Your task to perform on an android device: Empty the shopping cart on amazon. Search for razer naga on amazon, select the first entry, add it to the cart, then select checkout. Image 0: 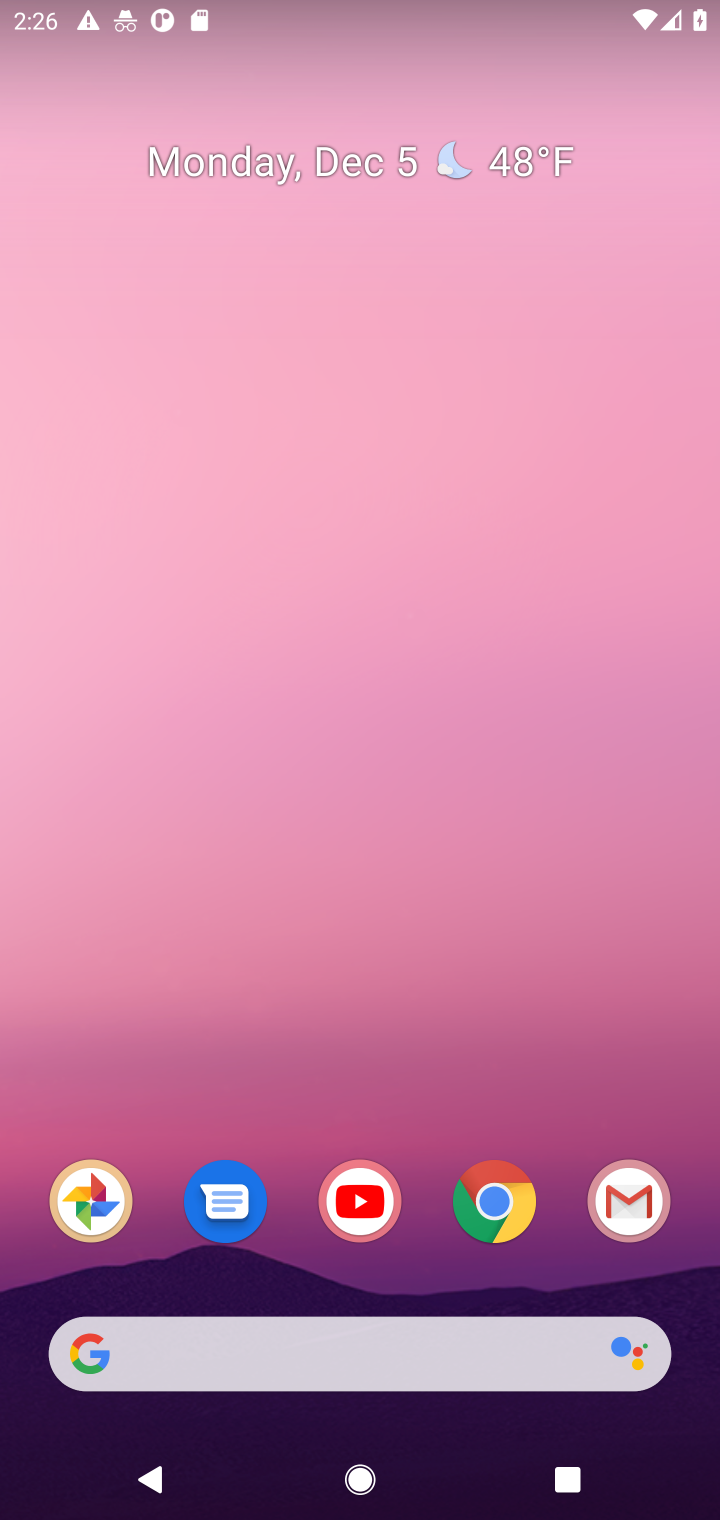
Step 0: click (494, 83)
Your task to perform on an android device: Empty the shopping cart on amazon. Search for razer naga on amazon, select the first entry, add it to the cart, then select checkout. Image 1: 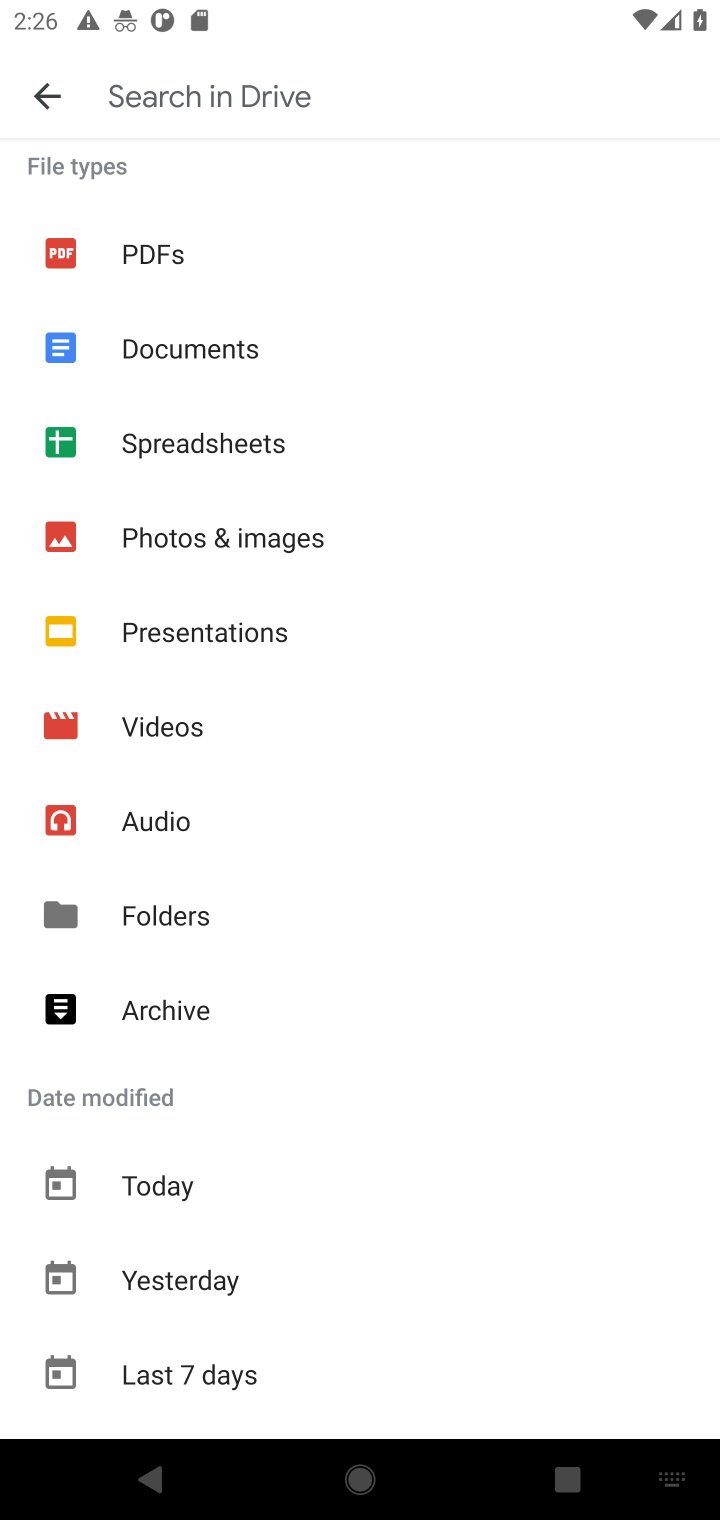
Step 1: press home button
Your task to perform on an android device: Empty the shopping cart on amazon. Search for razer naga on amazon, select the first entry, add it to the cart, then select checkout. Image 2: 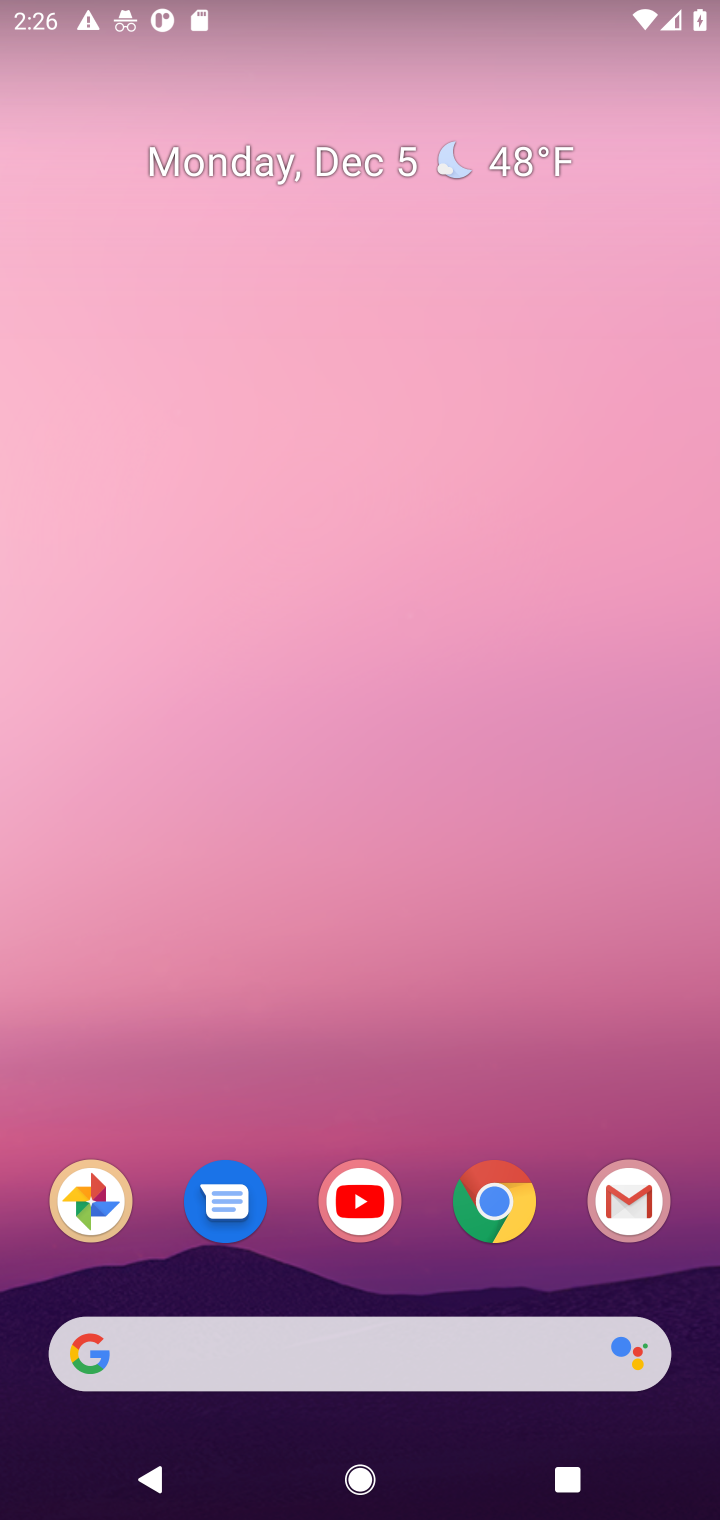
Step 2: click (485, 1179)
Your task to perform on an android device: Empty the shopping cart on amazon. Search for razer naga on amazon, select the first entry, add it to the cart, then select checkout. Image 3: 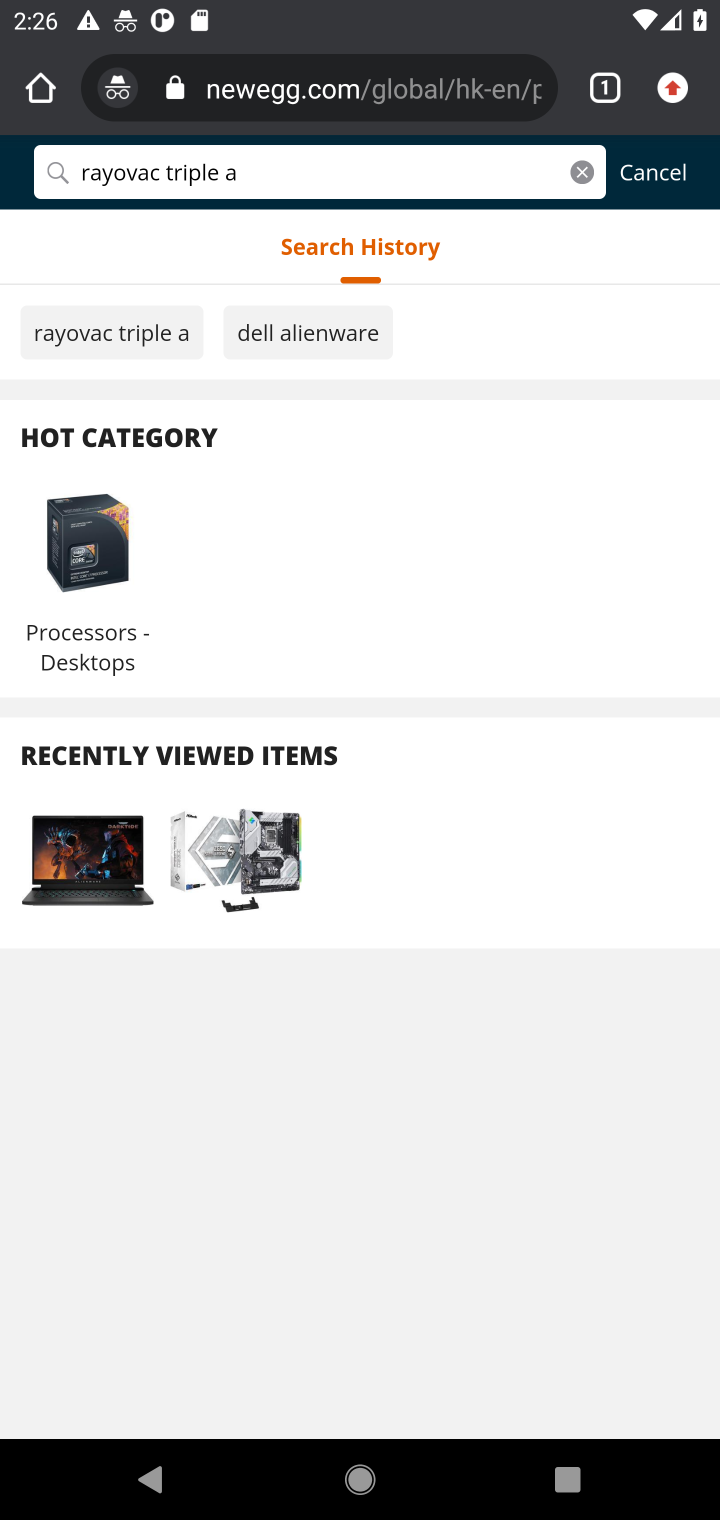
Step 3: click (304, 81)
Your task to perform on an android device: Empty the shopping cart on amazon. Search for razer naga on amazon, select the first entry, add it to the cart, then select checkout. Image 4: 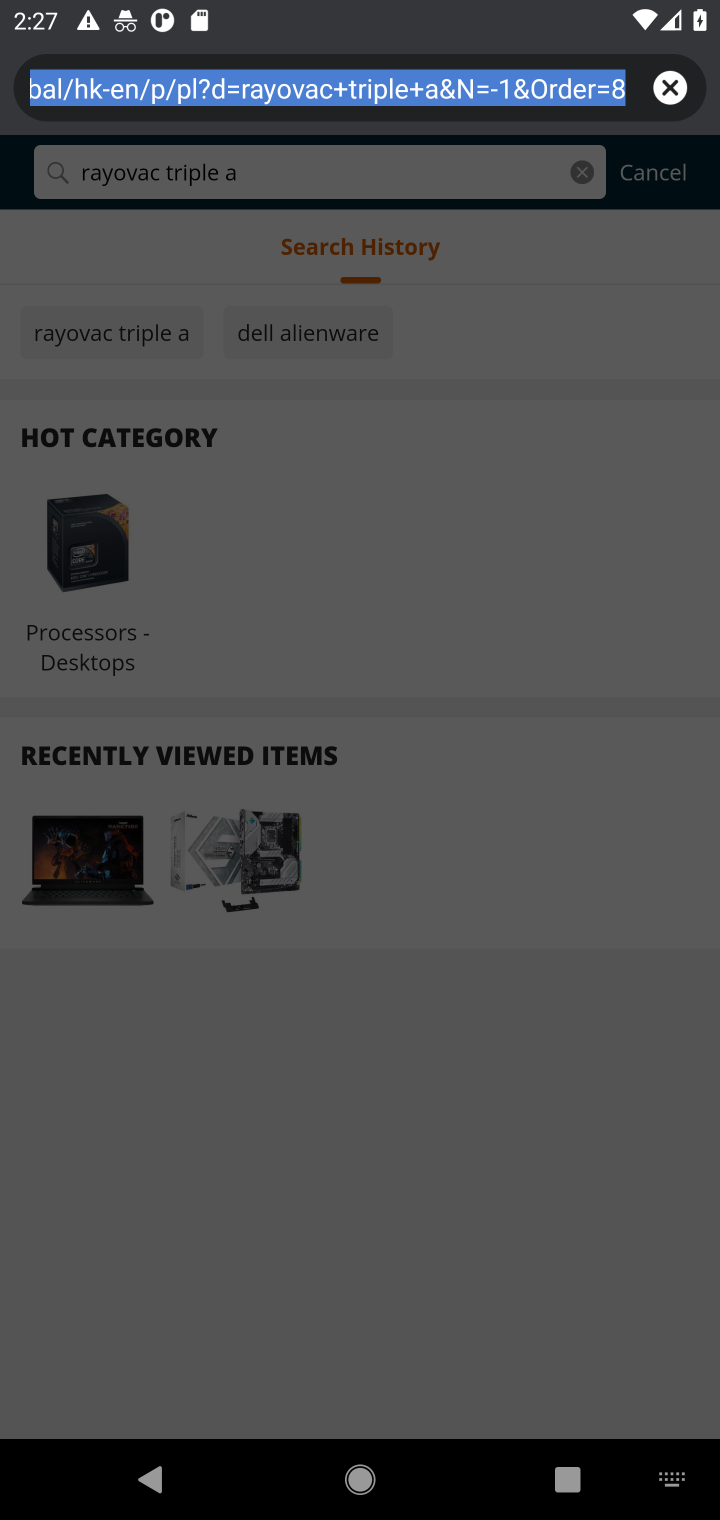
Step 4: click (669, 96)
Your task to perform on an android device: Empty the shopping cart on amazon. Search for razer naga on amazon, select the first entry, add it to the cart, then select checkout. Image 5: 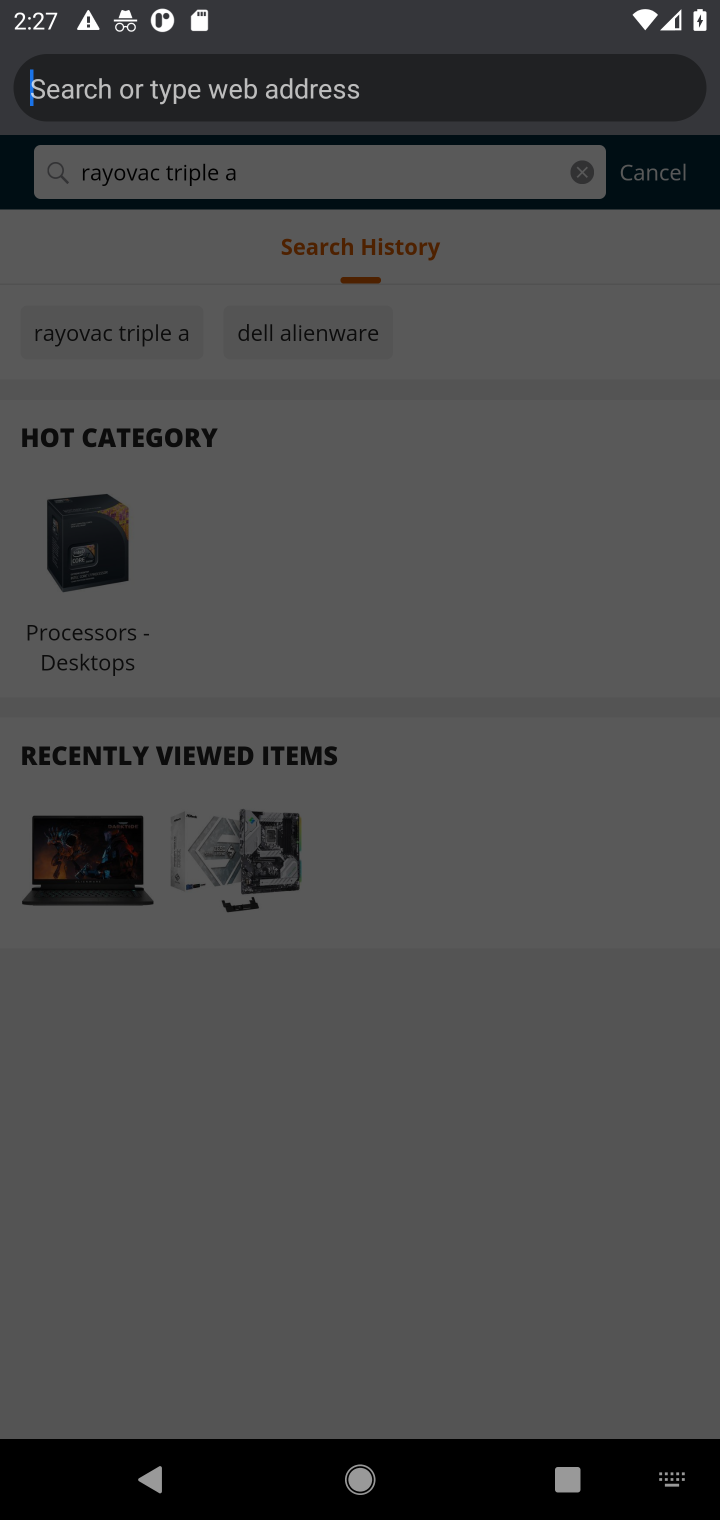
Step 5: click (231, 103)
Your task to perform on an android device: Empty the shopping cart on amazon. Search for razer naga on amazon, select the first entry, add it to the cart, then select checkout. Image 6: 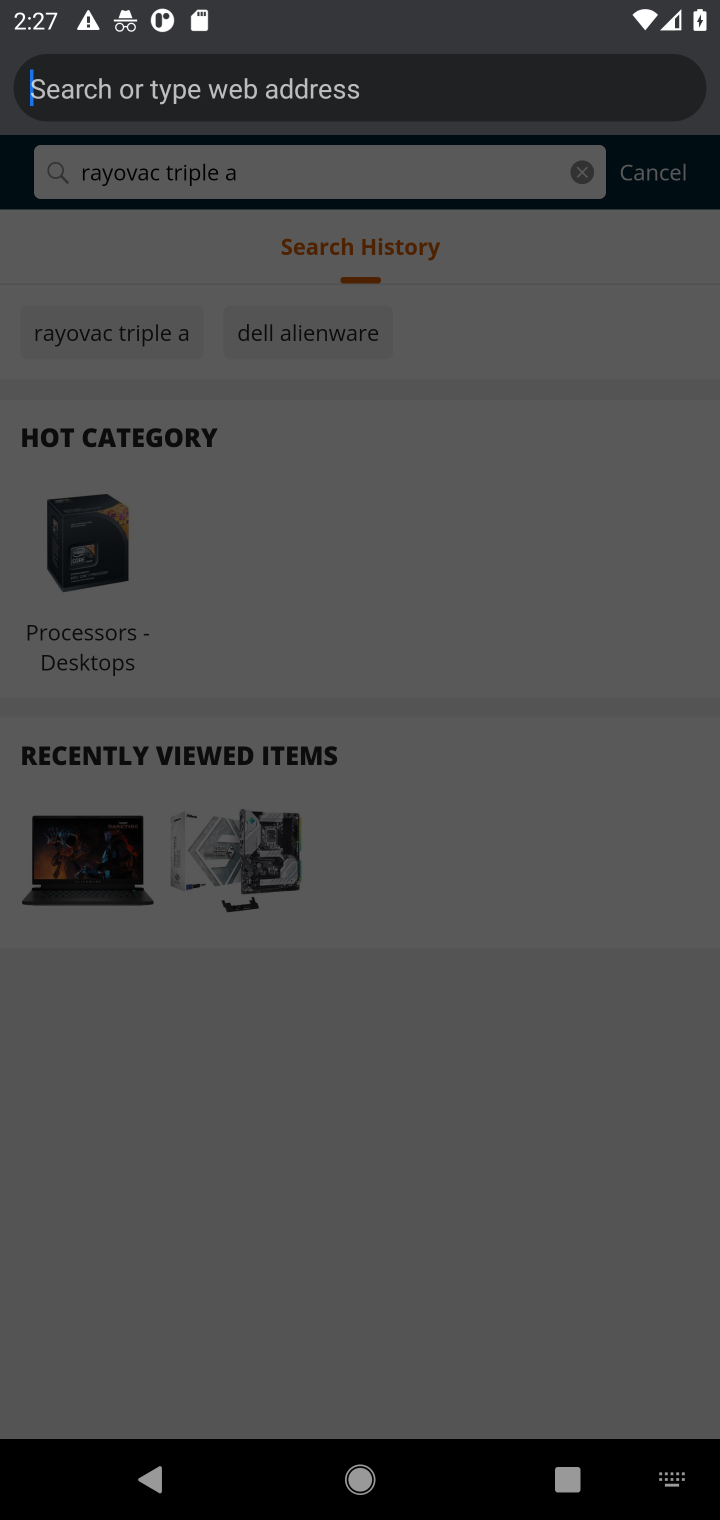
Step 6: type "amazon"
Your task to perform on an android device: Empty the shopping cart on amazon. Search for razer naga on amazon, select the first entry, add it to the cart, then select checkout. Image 7: 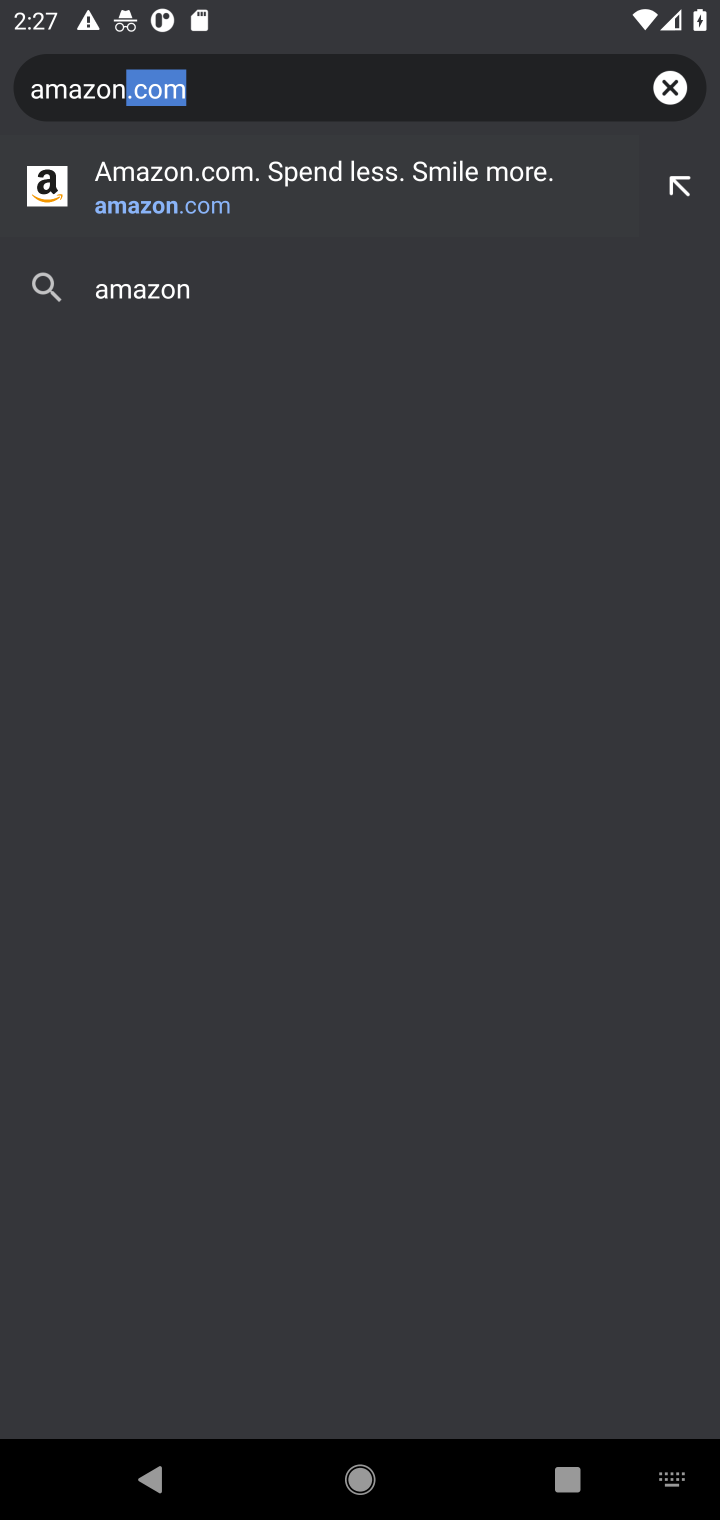
Step 7: click (197, 220)
Your task to perform on an android device: Empty the shopping cart on amazon. Search for razer naga on amazon, select the first entry, add it to the cart, then select checkout. Image 8: 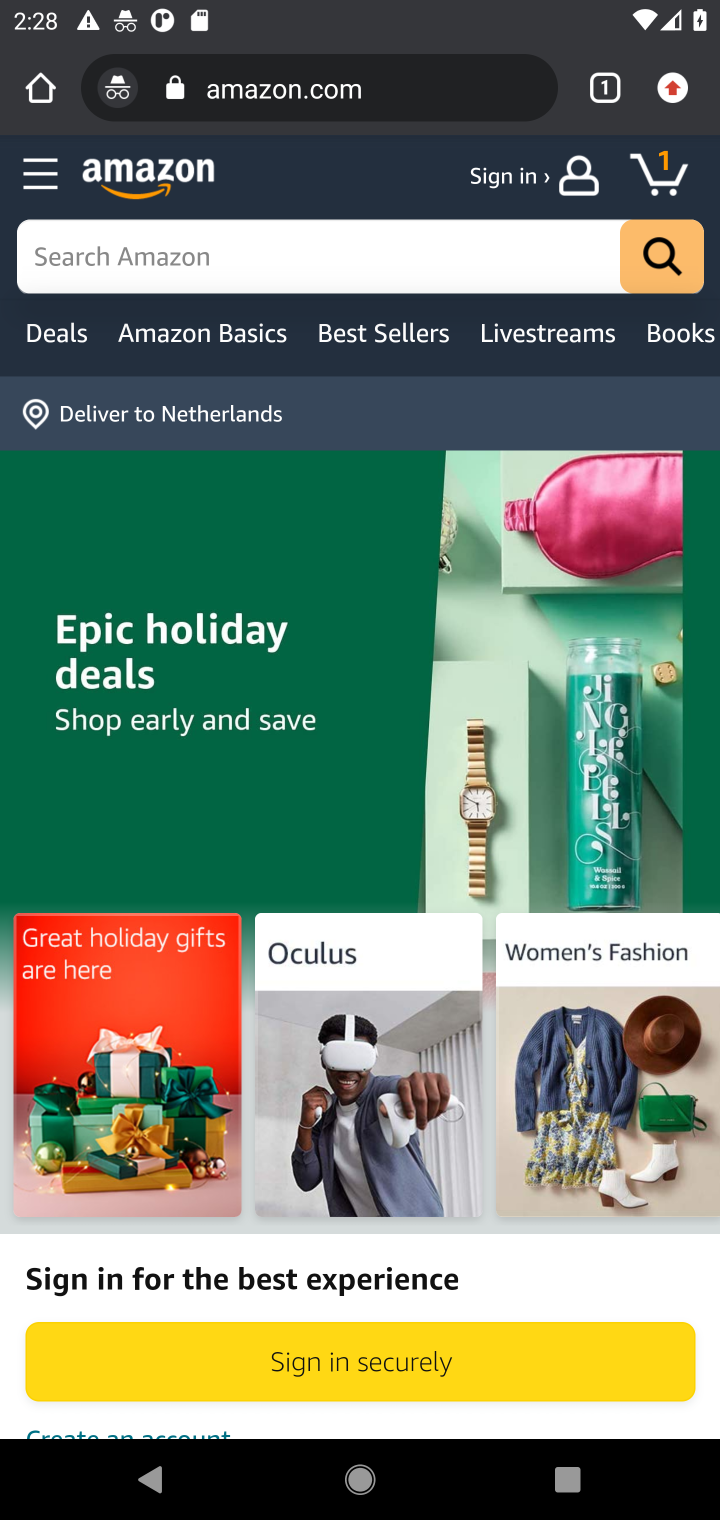
Step 8: click (671, 173)
Your task to perform on an android device: Empty the shopping cart on amazon. Search for razer naga on amazon, select the first entry, add it to the cart, then select checkout. Image 9: 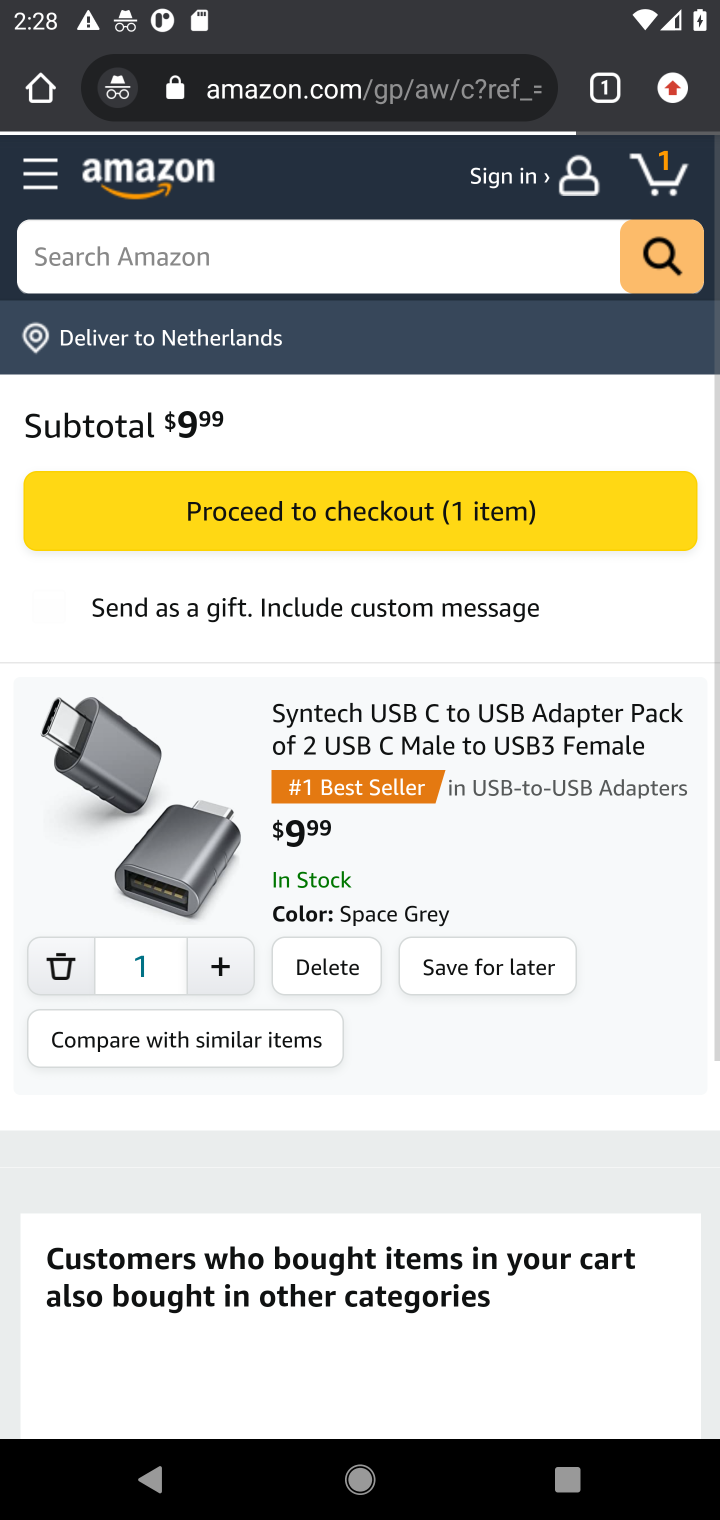
Step 9: click (671, 193)
Your task to perform on an android device: Empty the shopping cart on amazon. Search for razer naga on amazon, select the first entry, add it to the cart, then select checkout. Image 10: 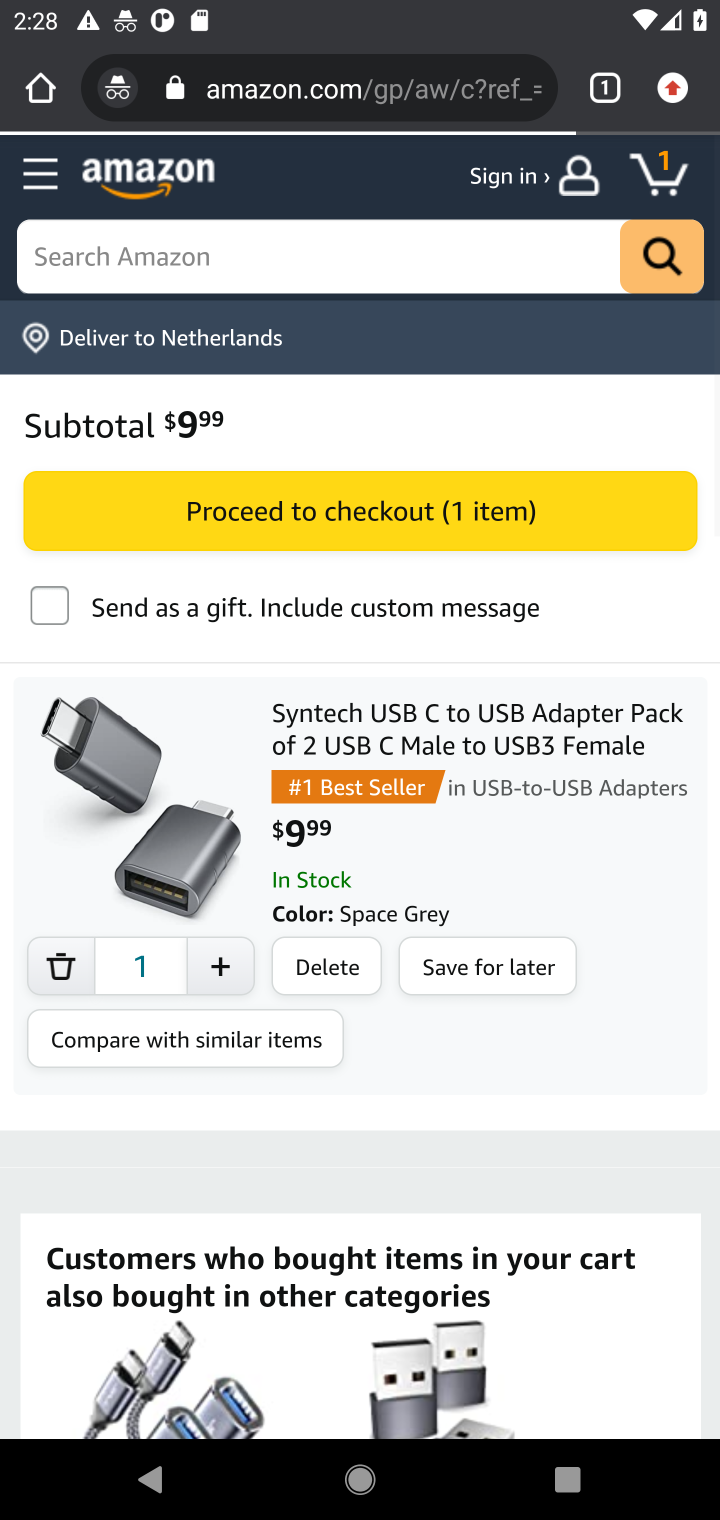
Step 10: click (76, 968)
Your task to perform on an android device: Empty the shopping cart on amazon. Search for razer naga on amazon, select the first entry, add it to the cart, then select checkout. Image 11: 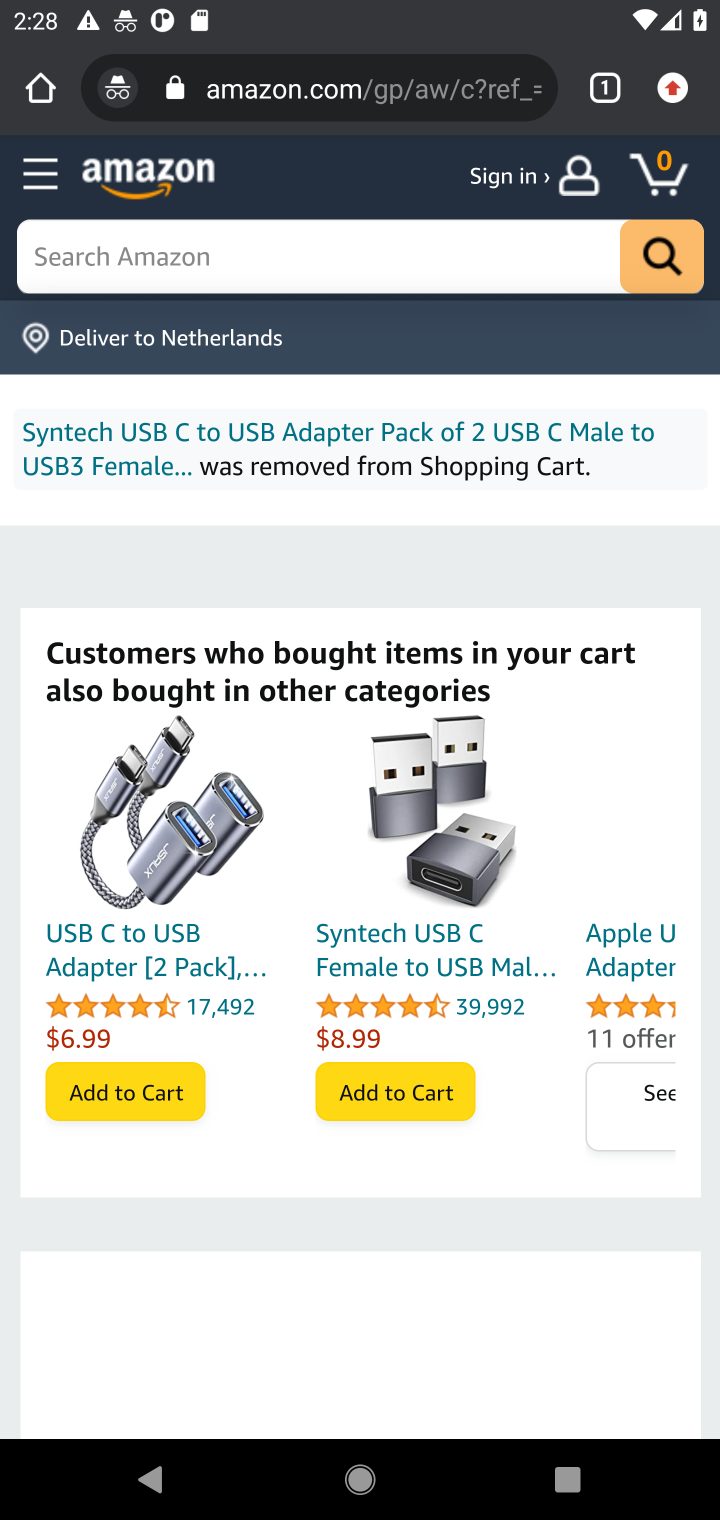
Step 11: click (76, 968)
Your task to perform on an android device: Empty the shopping cart on amazon. Search for razer naga on amazon, select the first entry, add it to the cart, then select checkout. Image 12: 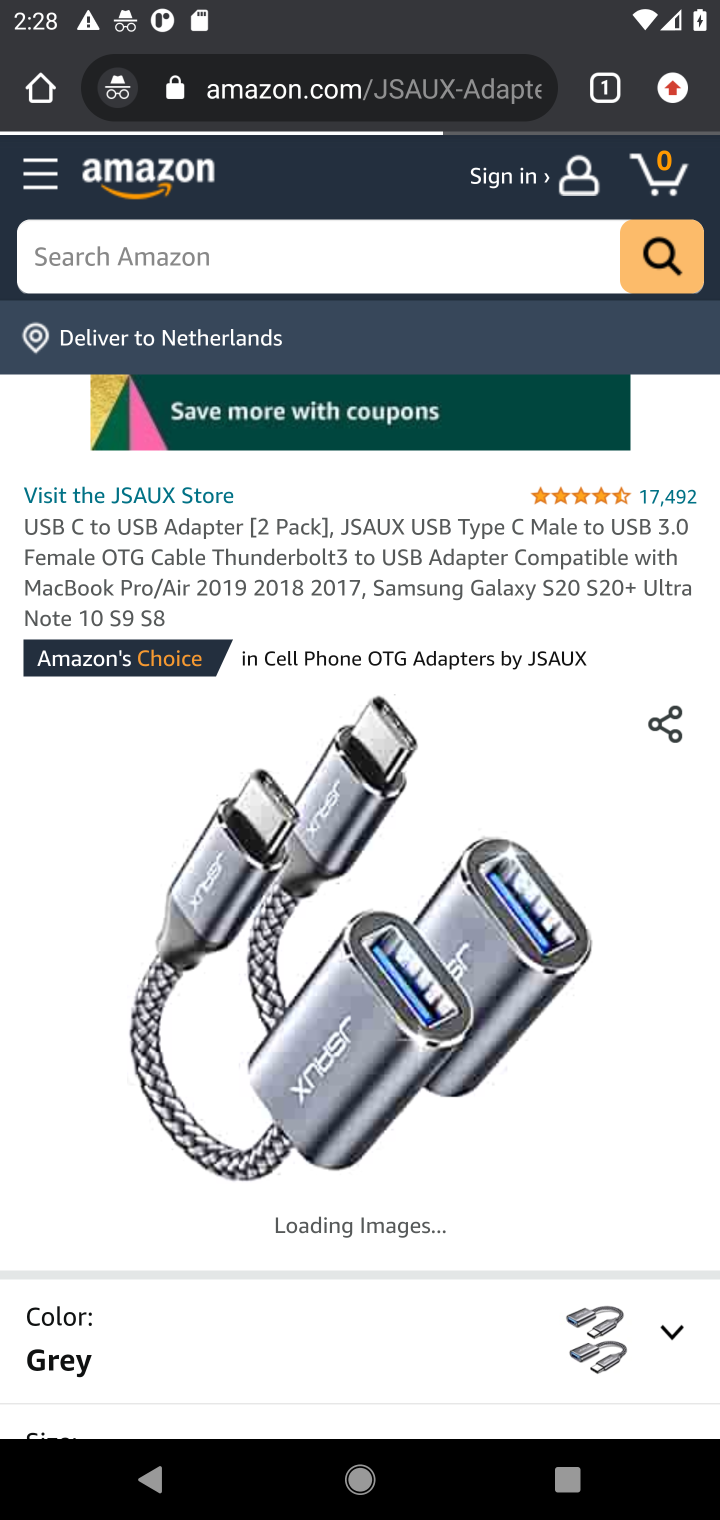
Step 12: click (251, 258)
Your task to perform on an android device: Empty the shopping cart on amazon. Search for razer naga on amazon, select the first entry, add it to the cart, then select checkout. Image 13: 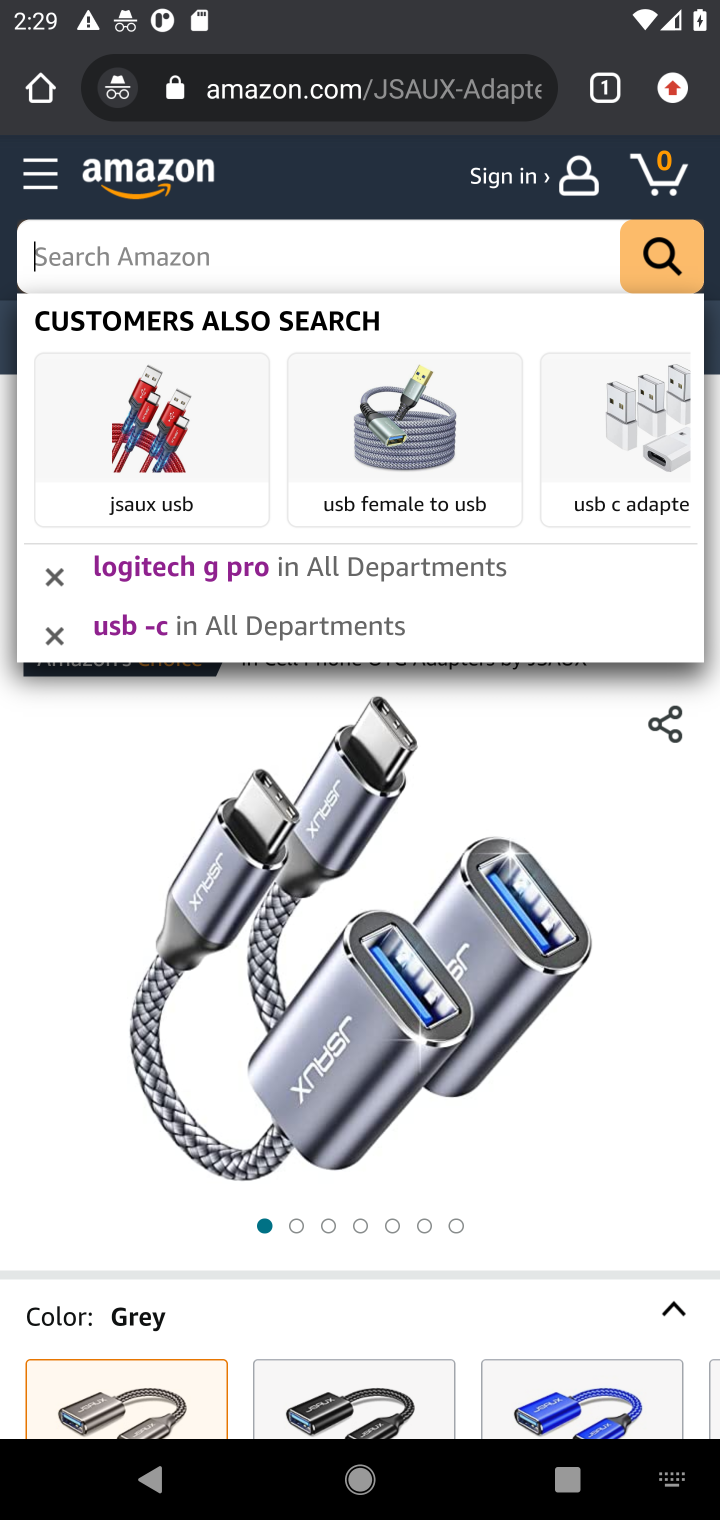
Step 13: type "razer naga"
Your task to perform on an android device: Empty the shopping cart on amazon. Search for razer naga on amazon, select the first entry, add it to the cart, then select checkout. Image 14: 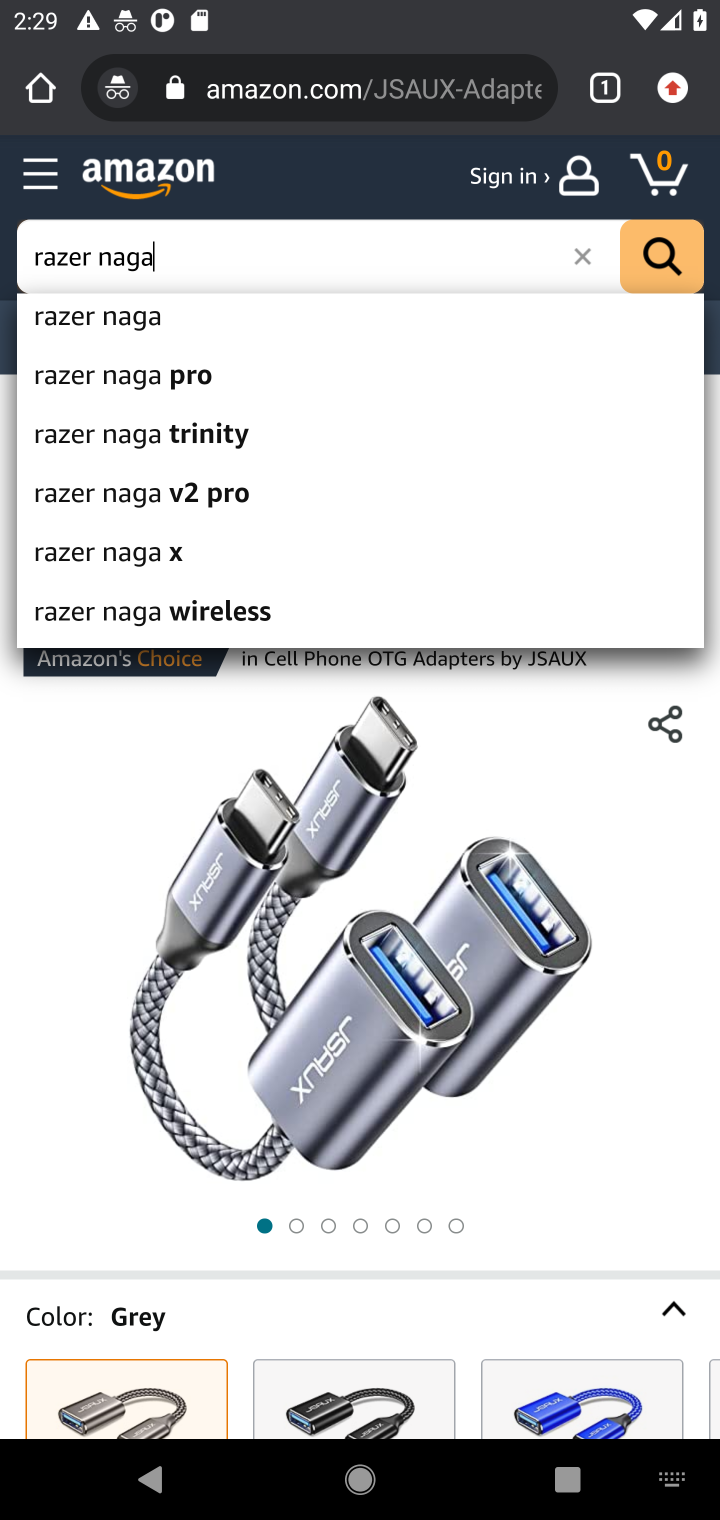
Step 14: click (651, 260)
Your task to perform on an android device: Empty the shopping cart on amazon. Search for razer naga on amazon, select the first entry, add it to the cart, then select checkout. Image 15: 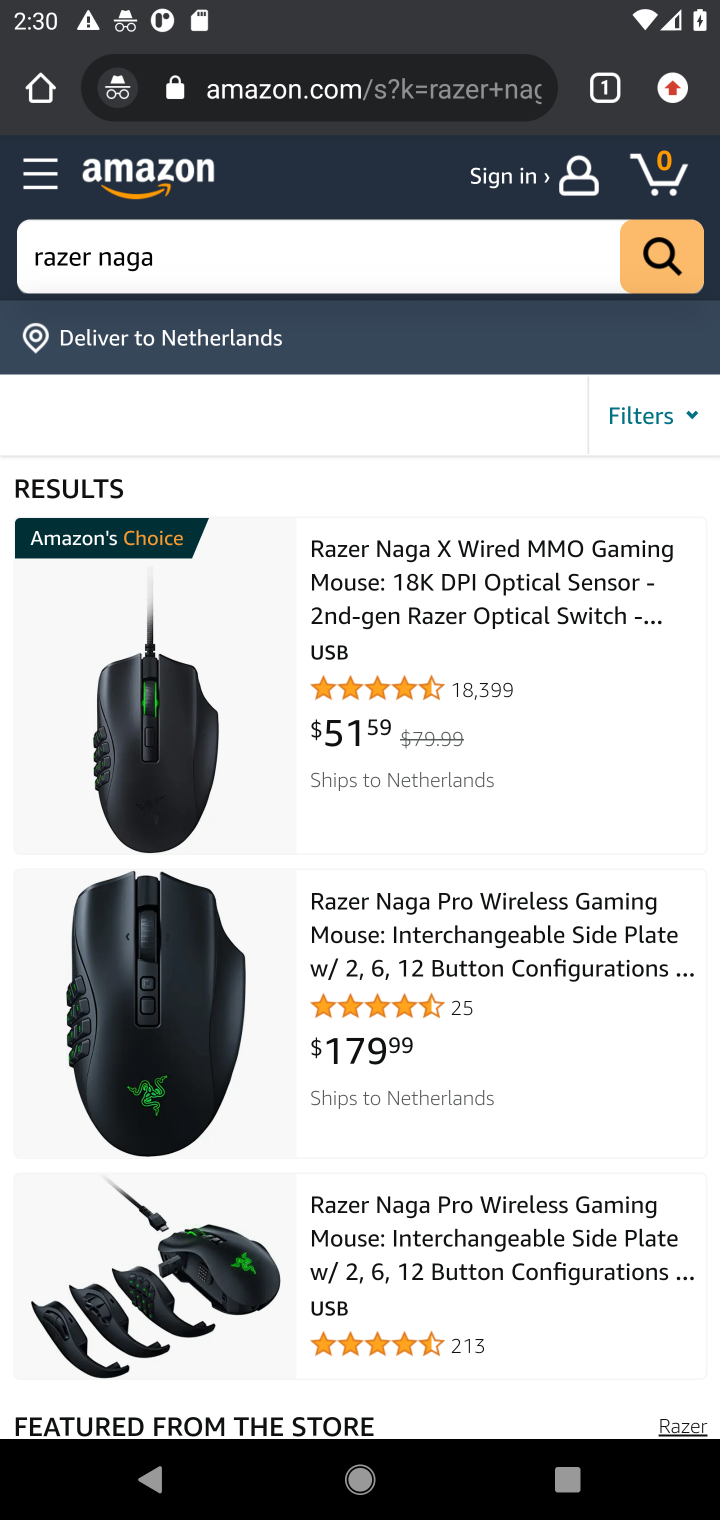
Step 15: click (563, 536)
Your task to perform on an android device: Empty the shopping cart on amazon. Search for razer naga on amazon, select the first entry, add it to the cart, then select checkout. Image 16: 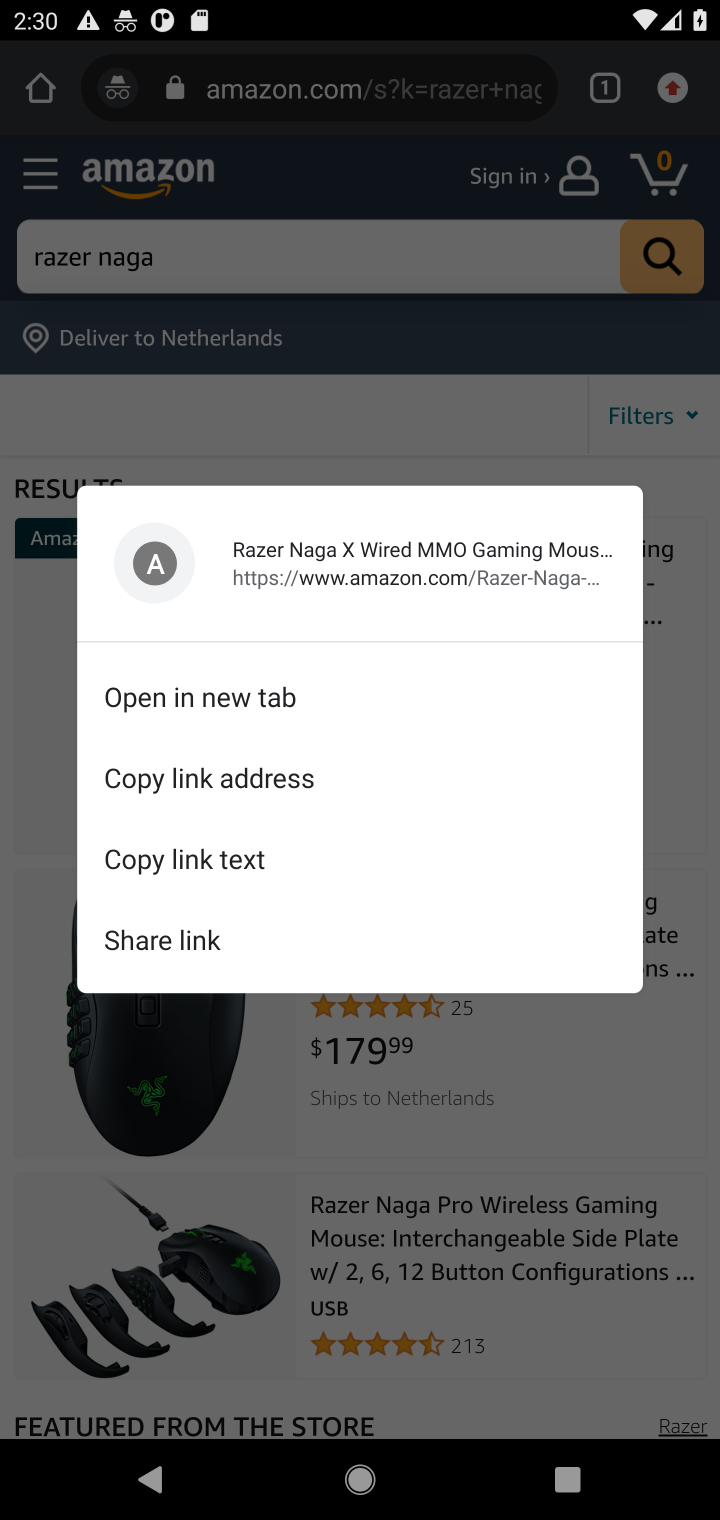
Step 16: click (671, 573)
Your task to perform on an android device: Empty the shopping cart on amazon. Search for razer naga on amazon, select the first entry, add it to the cart, then select checkout. Image 17: 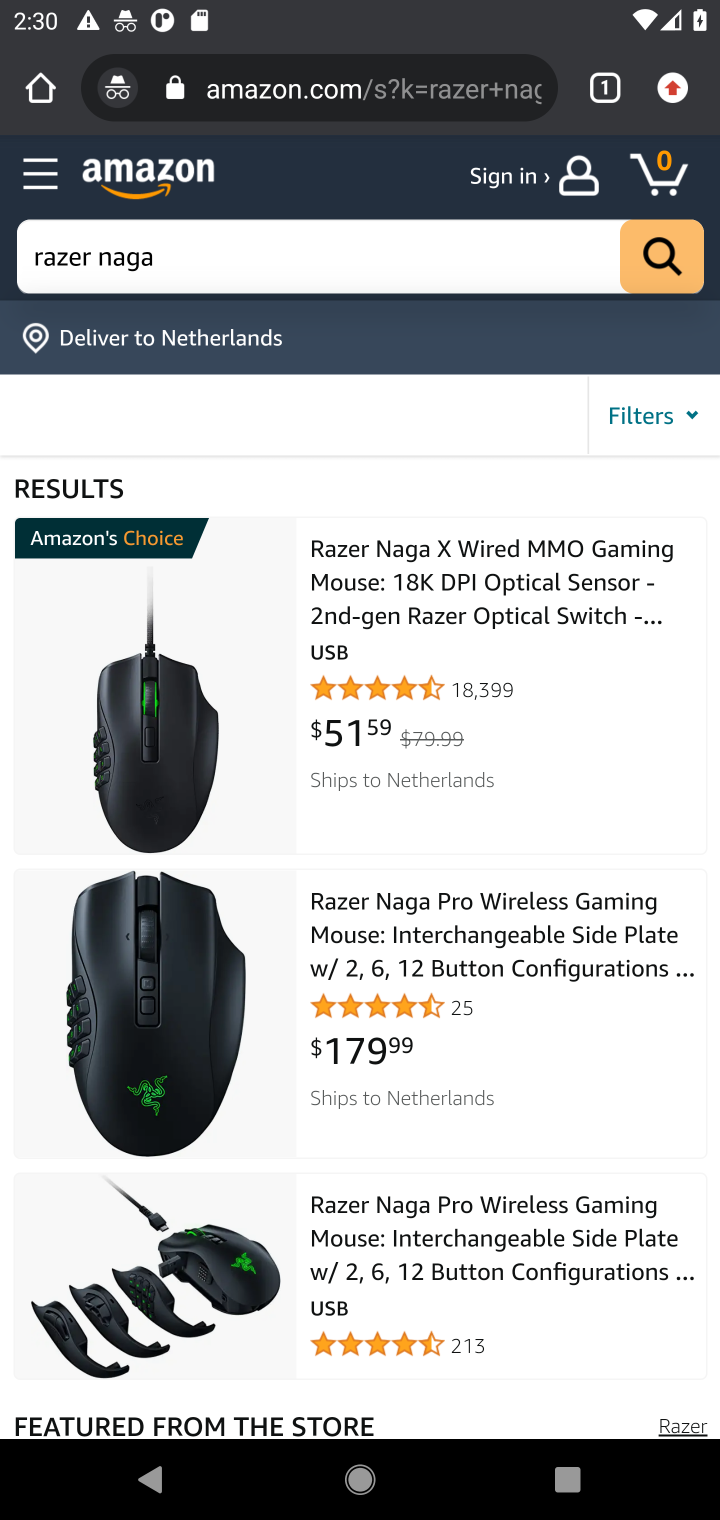
Step 17: click (671, 573)
Your task to perform on an android device: Empty the shopping cart on amazon. Search for razer naga on amazon, select the first entry, add it to the cart, then select checkout. Image 18: 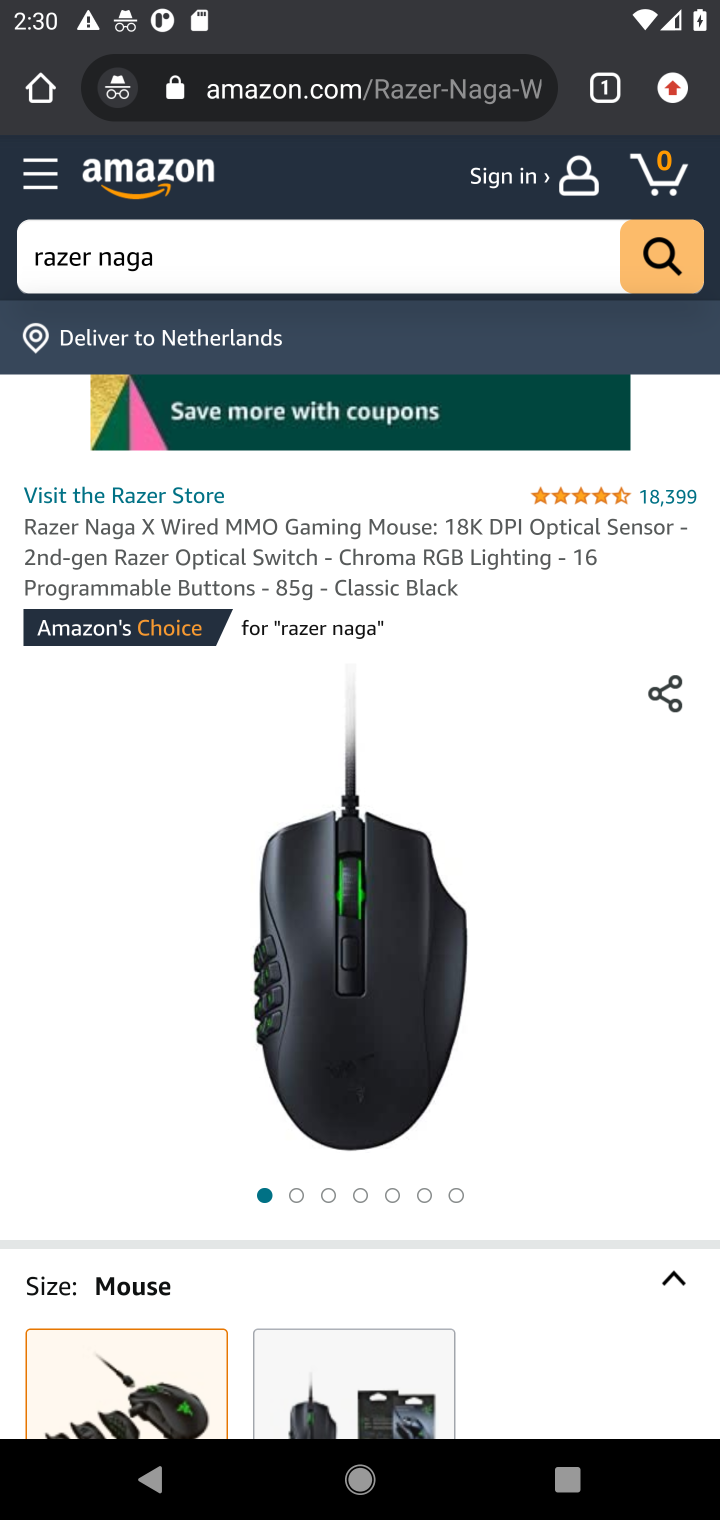
Step 18: drag from (110, 1297) to (541, 262)
Your task to perform on an android device: Empty the shopping cart on amazon. Search for razer naga on amazon, select the first entry, add it to the cart, then select checkout. Image 19: 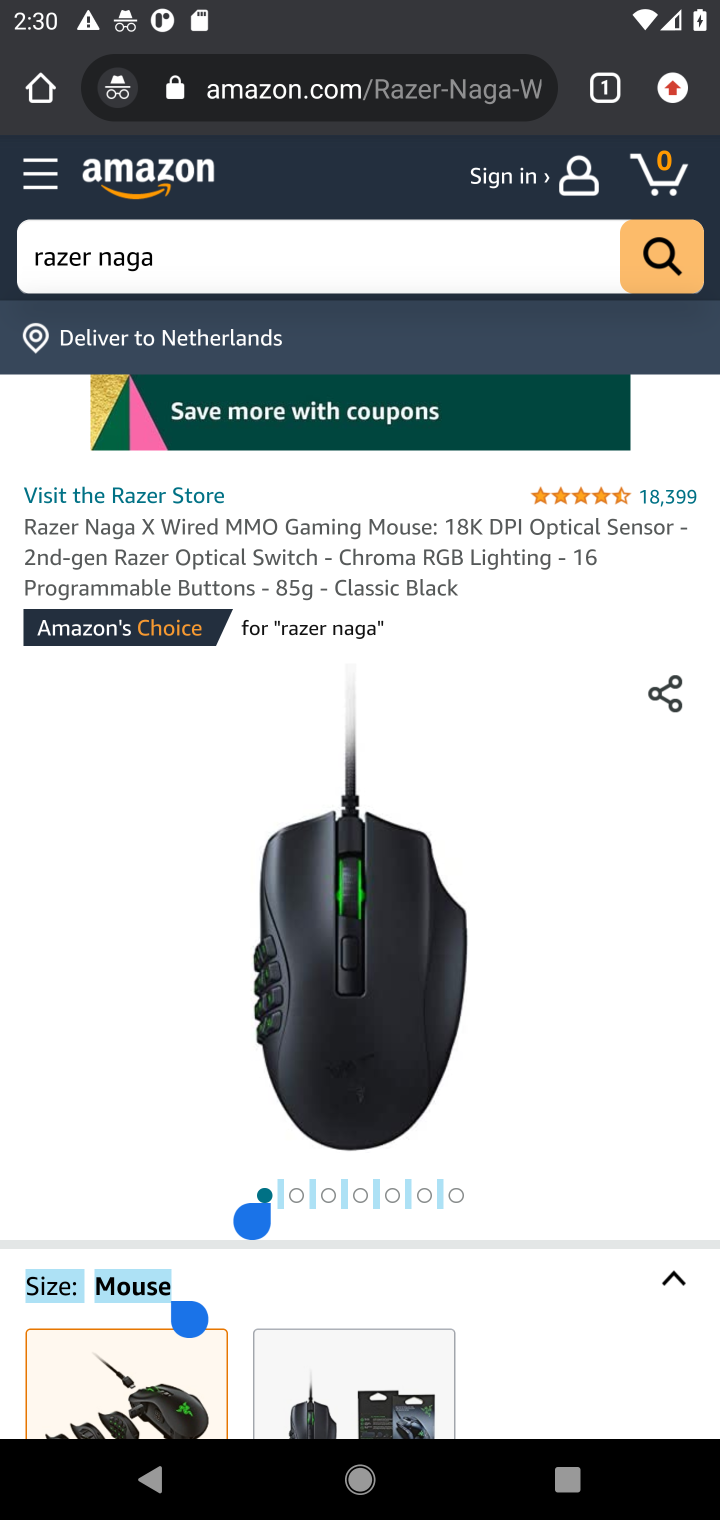
Step 19: drag from (581, 1357) to (451, 379)
Your task to perform on an android device: Empty the shopping cart on amazon. Search for razer naga on amazon, select the first entry, add it to the cart, then select checkout. Image 20: 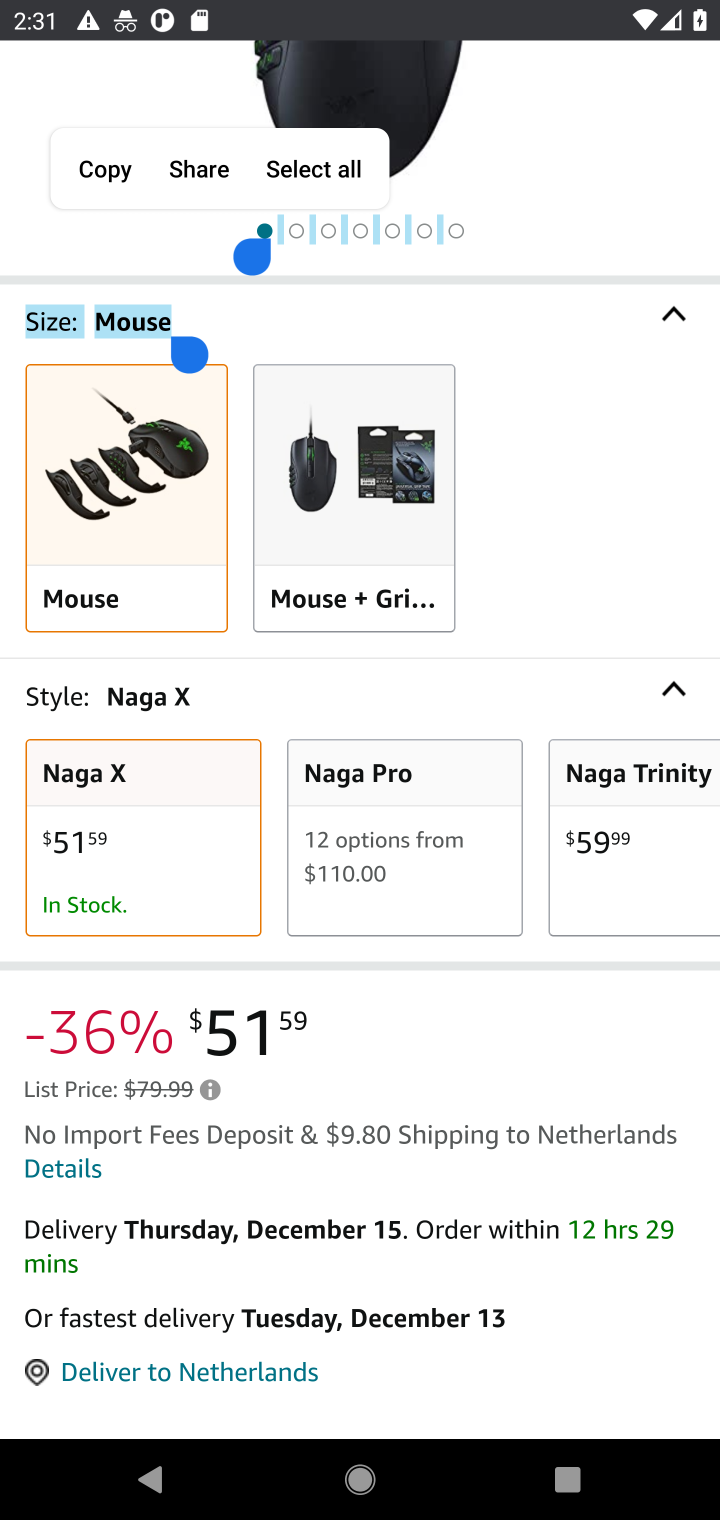
Step 20: click (452, 1328)
Your task to perform on an android device: Empty the shopping cart on amazon. Search for razer naga on amazon, select the first entry, add it to the cart, then select checkout. Image 21: 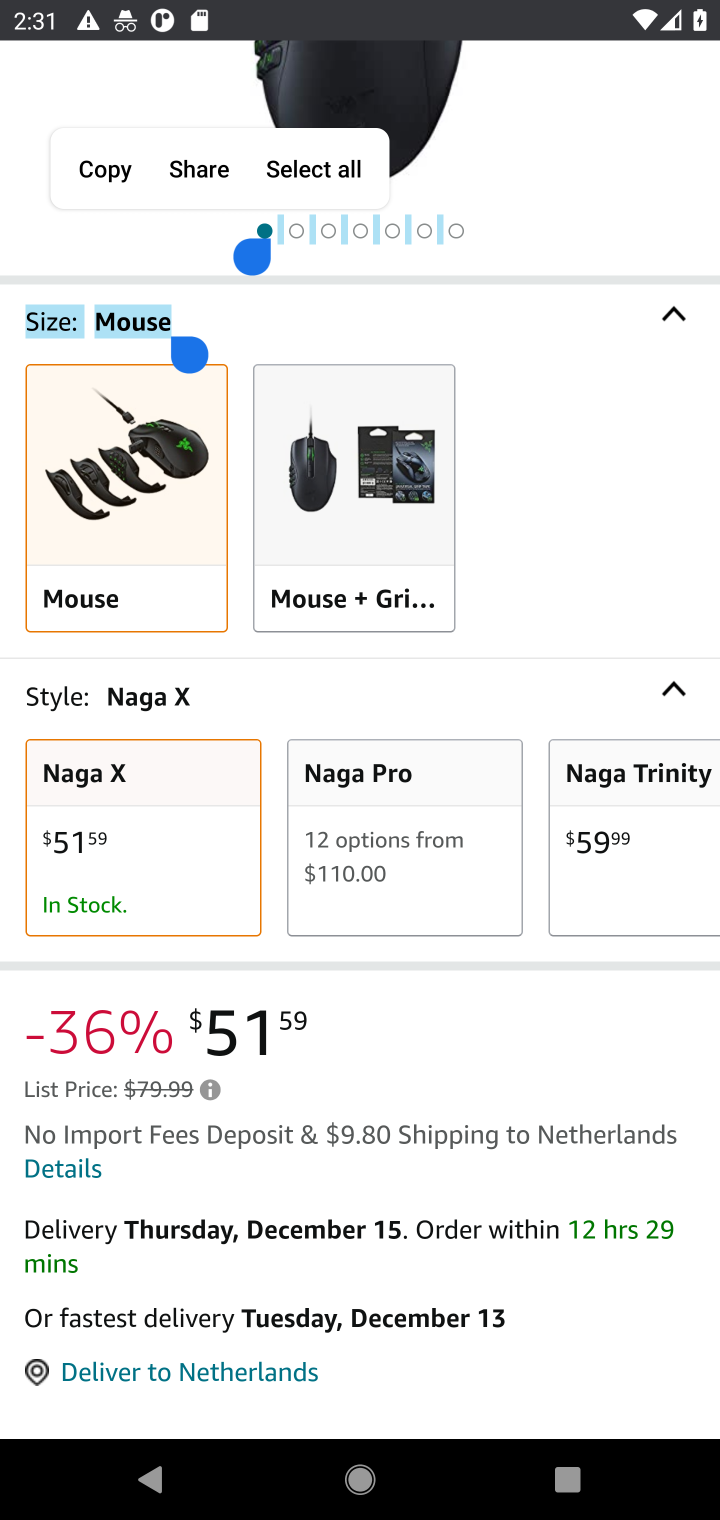
Step 21: drag from (392, 1385) to (391, 411)
Your task to perform on an android device: Empty the shopping cart on amazon. Search for razer naga on amazon, select the first entry, add it to the cart, then select checkout. Image 22: 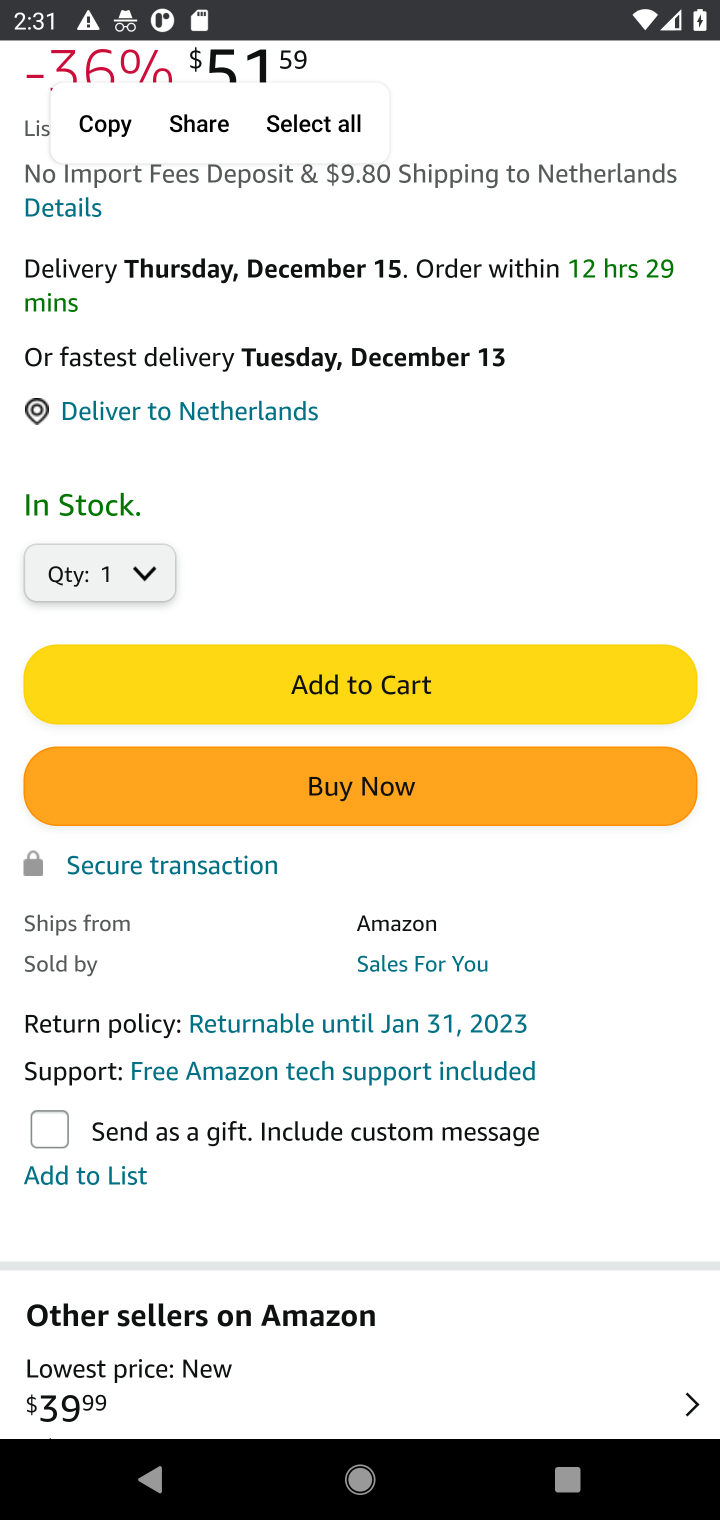
Step 22: click (423, 685)
Your task to perform on an android device: Empty the shopping cart on amazon. Search for razer naga on amazon, select the first entry, add it to the cart, then select checkout. Image 23: 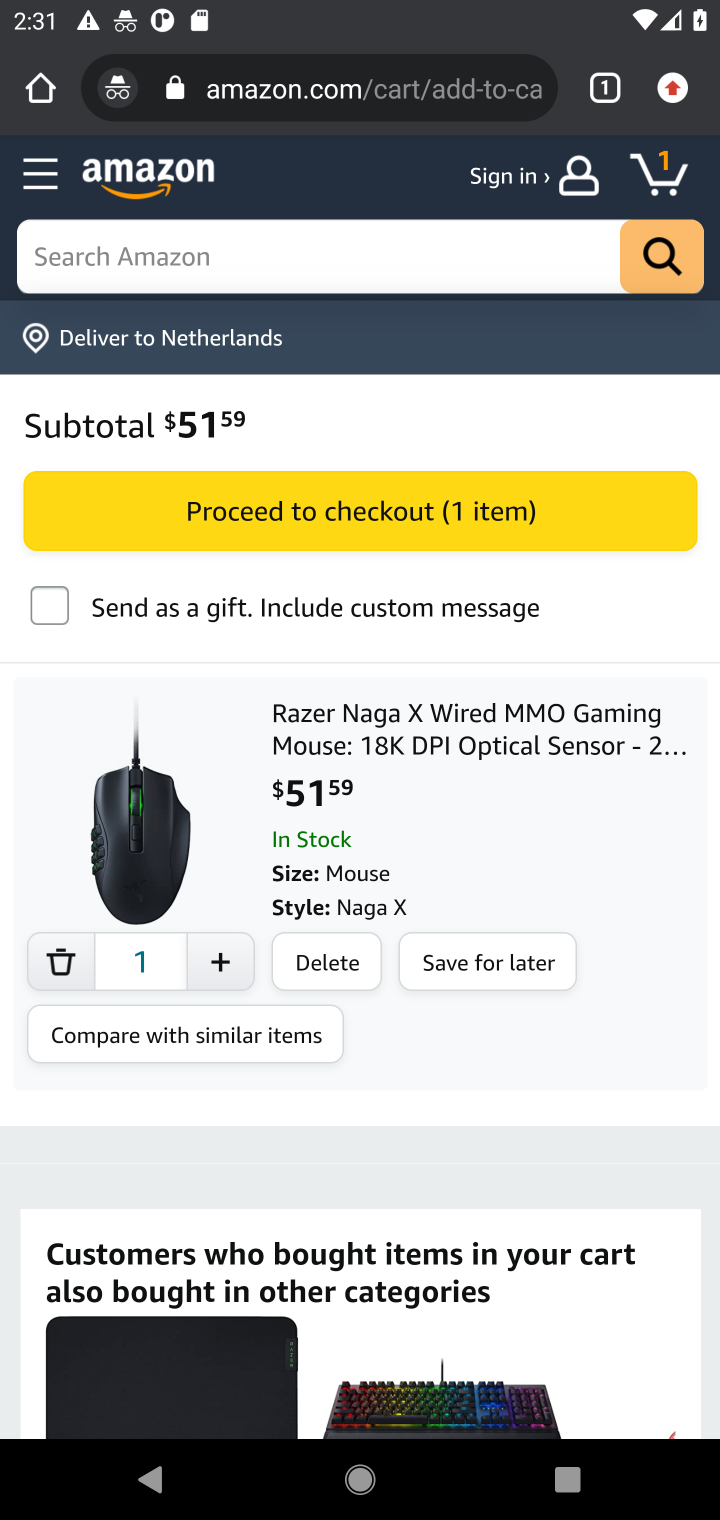
Step 23: click (290, 503)
Your task to perform on an android device: Empty the shopping cart on amazon. Search for razer naga on amazon, select the first entry, add it to the cart, then select checkout. Image 24: 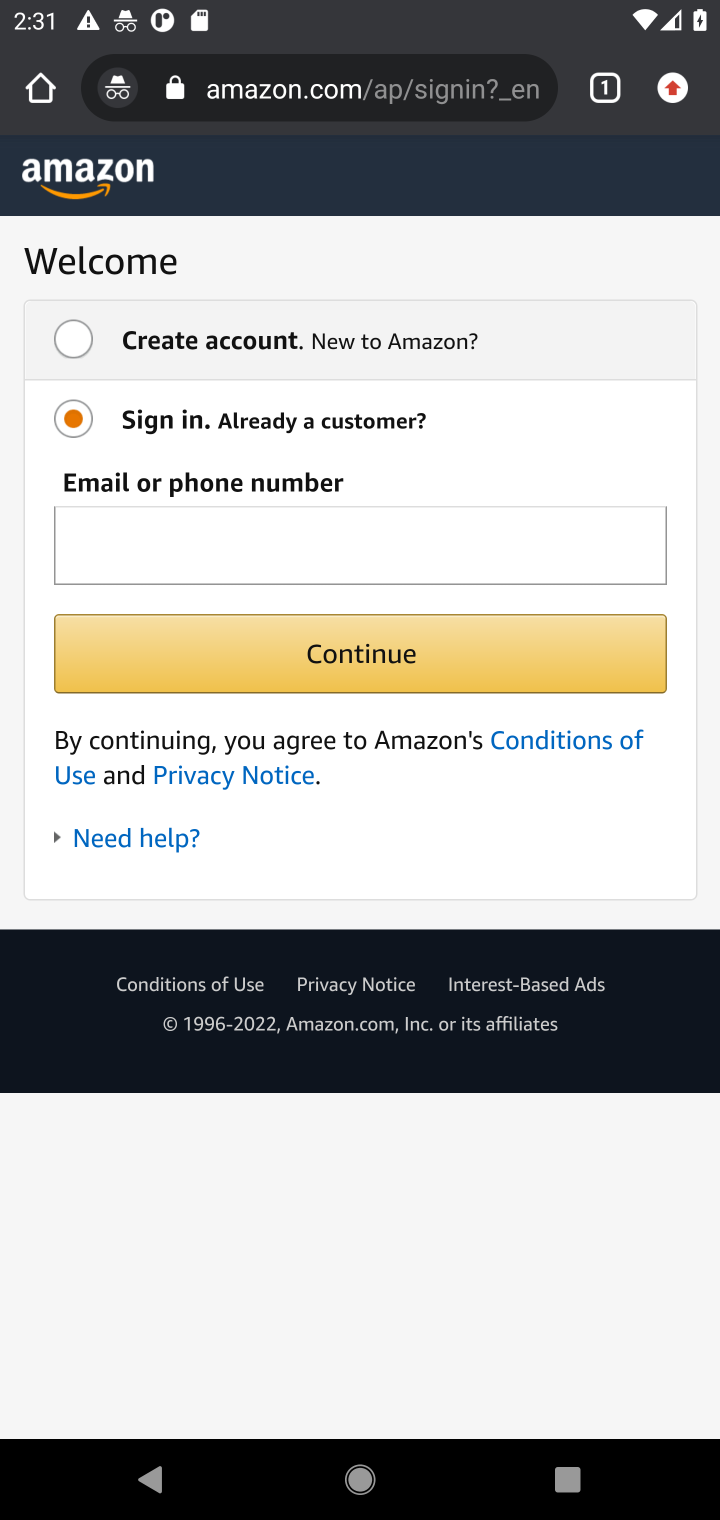
Step 24: task complete